Your task to perform on an android device: When is my next appointment? Image 0: 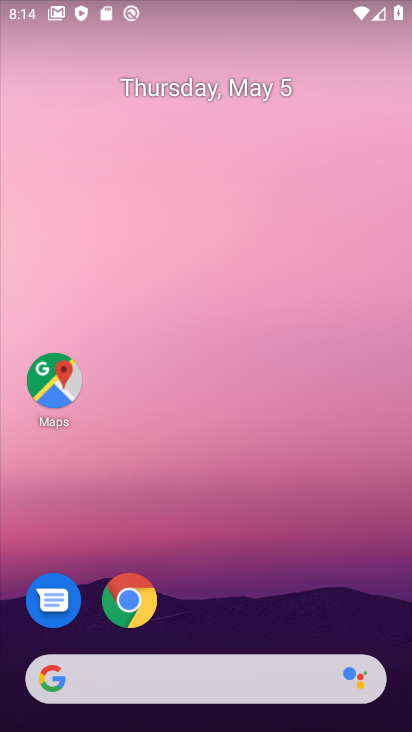
Step 0: drag from (353, 617) to (306, 120)
Your task to perform on an android device: When is my next appointment? Image 1: 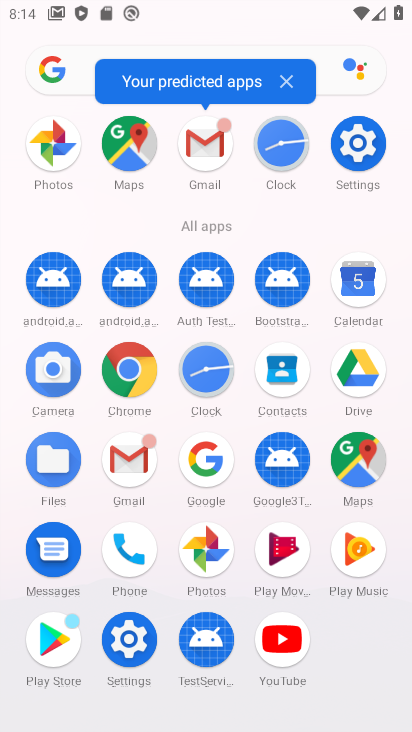
Step 1: click (359, 275)
Your task to perform on an android device: When is my next appointment? Image 2: 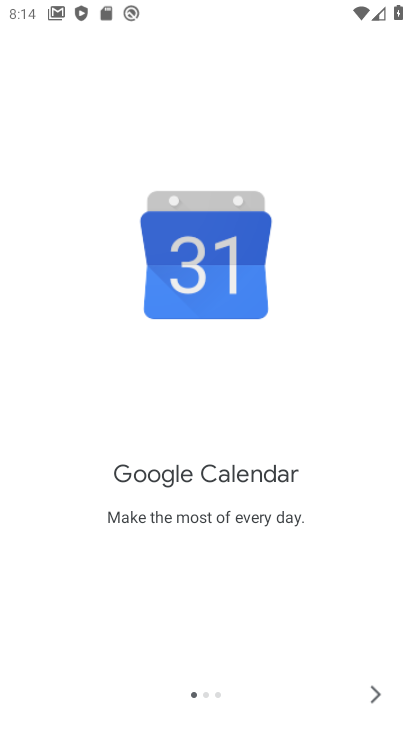
Step 2: click (372, 694)
Your task to perform on an android device: When is my next appointment? Image 3: 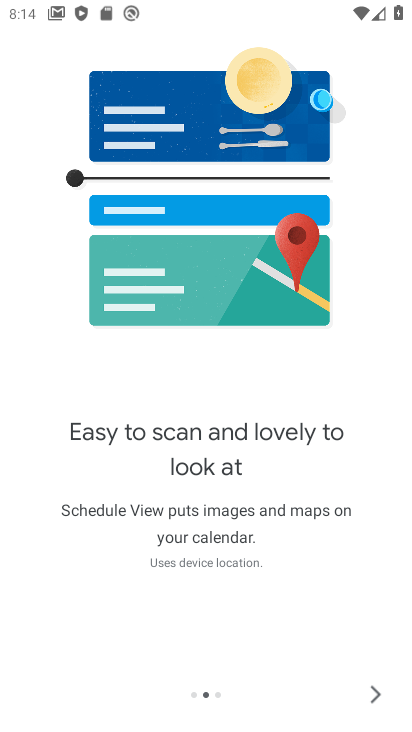
Step 3: click (373, 690)
Your task to perform on an android device: When is my next appointment? Image 4: 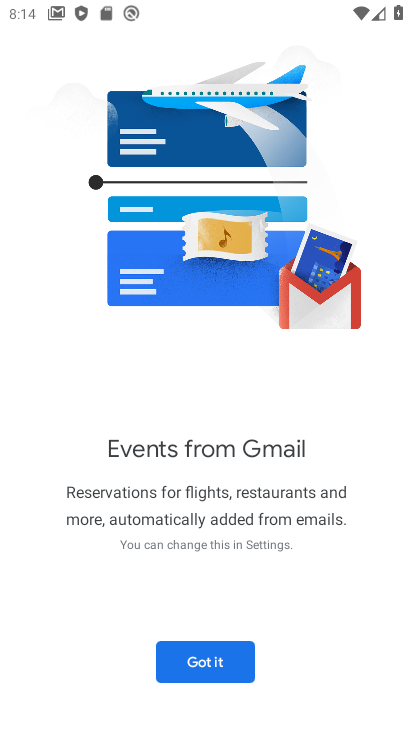
Step 4: click (199, 654)
Your task to perform on an android device: When is my next appointment? Image 5: 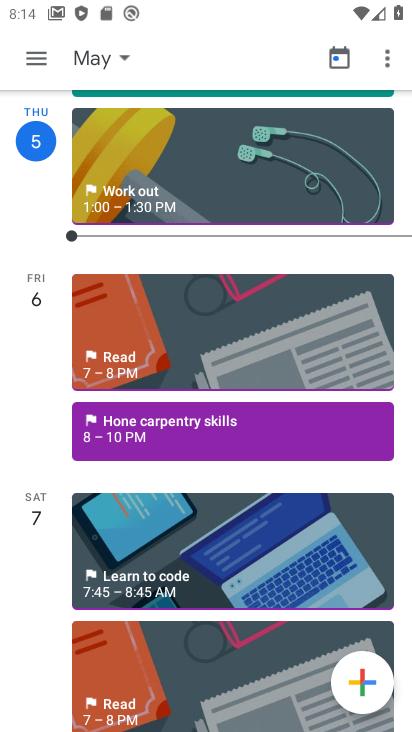
Step 5: click (37, 56)
Your task to perform on an android device: When is my next appointment? Image 6: 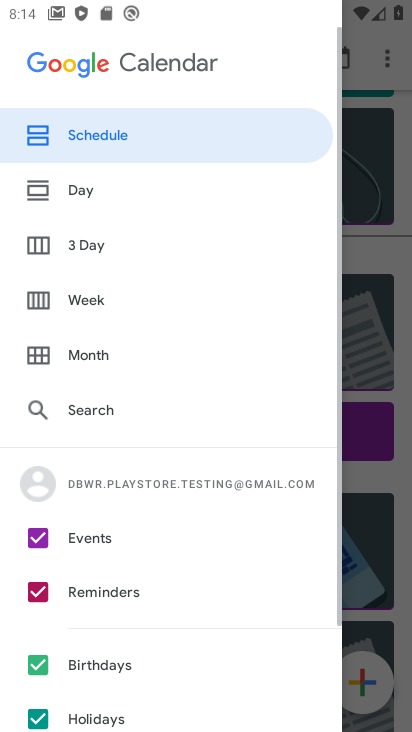
Step 6: click (151, 134)
Your task to perform on an android device: When is my next appointment? Image 7: 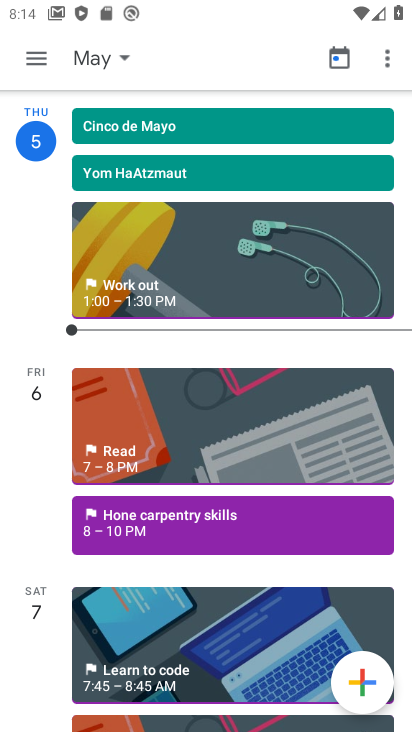
Step 7: task complete